Your task to perform on an android device: Open Android settings Image 0: 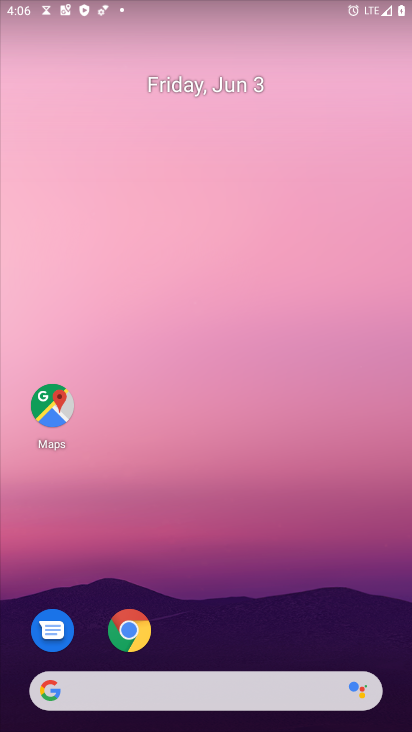
Step 0: drag from (222, 494) to (201, 10)
Your task to perform on an android device: Open Android settings Image 1: 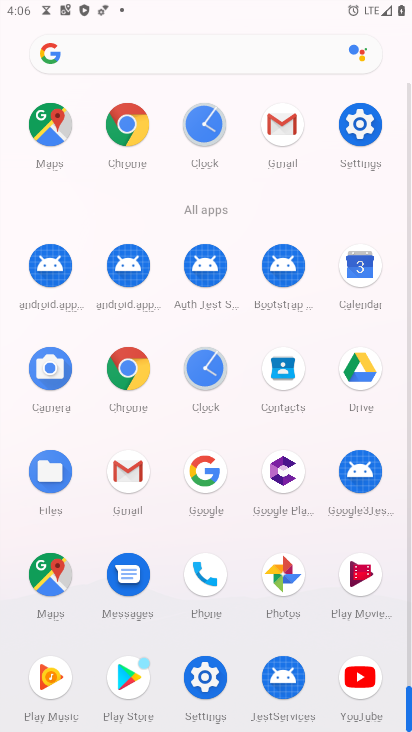
Step 1: drag from (4, 466) to (19, 171)
Your task to perform on an android device: Open Android settings Image 2: 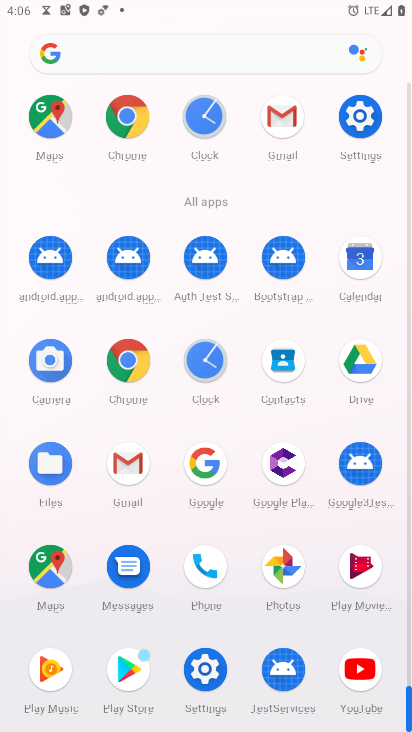
Step 2: click (204, 665)
Your task to perform on an android device: Open Android settings Image 3: 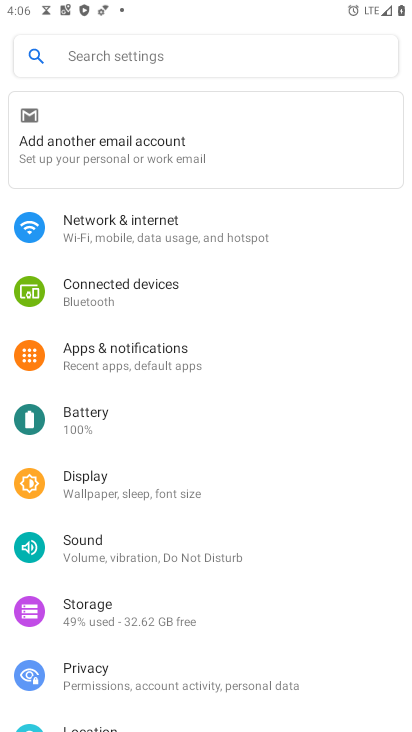
Step 3: task complete